Your task to perform on an android device: see sites visited before in the chrome app Image 0: 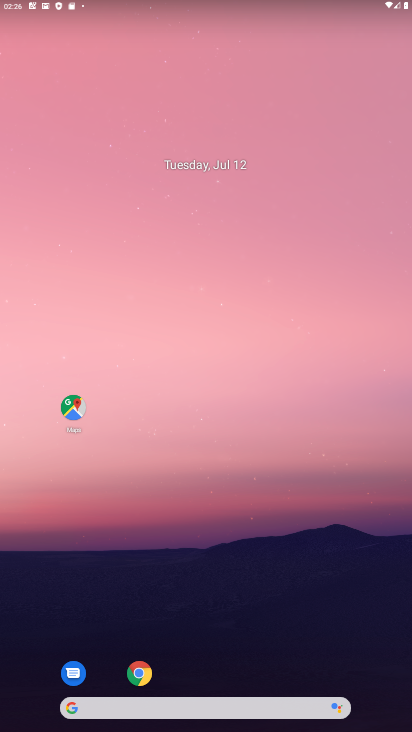
Step 0: press home button
Your task to perform on an android device: see sites visited before in the chrome app Image 1: 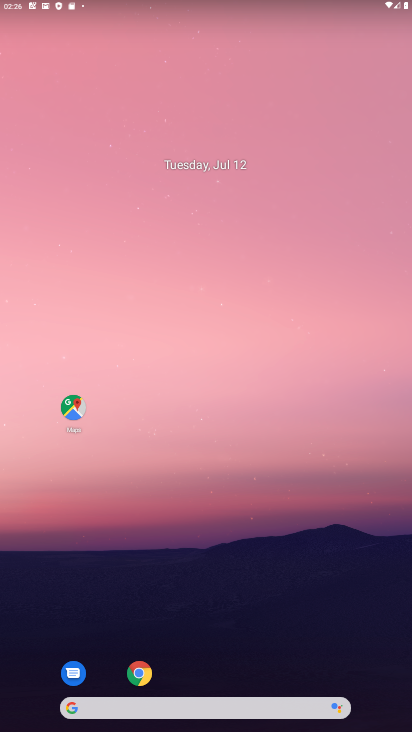
Step 1: drag from (307, 570) to (249, 171)
Your task to perform on an android device: see sites visited before in the chrome app Image 2: 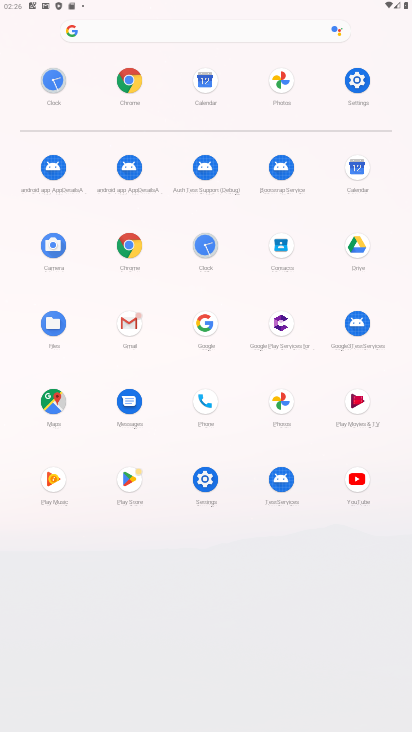
Step 2: click (124, 247)
Your task to perform on an android device: see sites visited before in the chrome app Image 3: 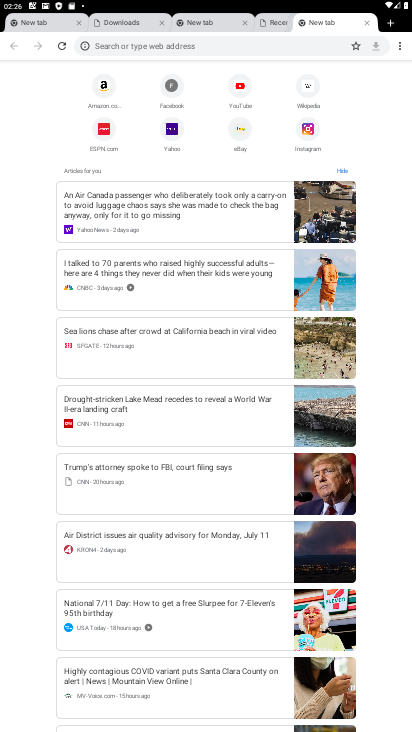
Step 3: task complete